Your task to perform on an android device: Open sound settings Image 0: 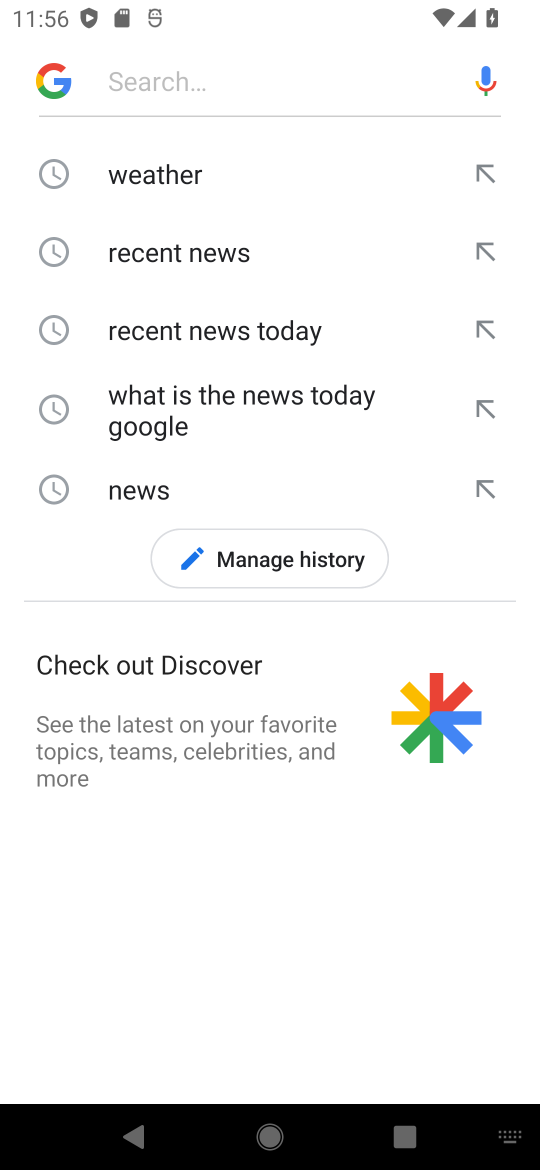
Step 0: press home button
Your task to perform on an android device: Open sound settings Image 1: 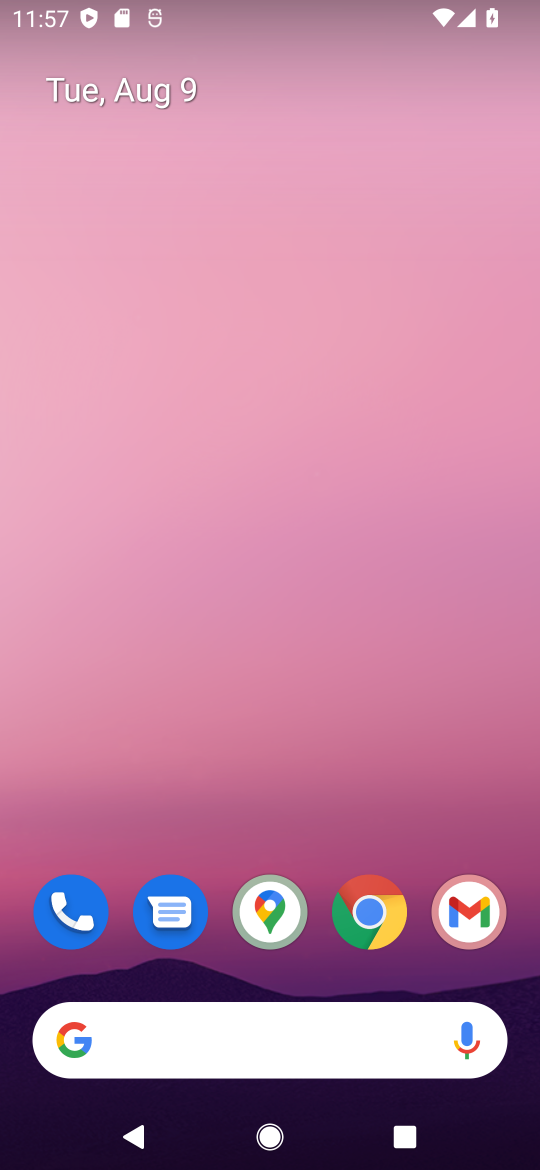
Step 1: drag from (216, 978) to (289, 352)
Your task to perform on an android device: Open sound settings Image 2: 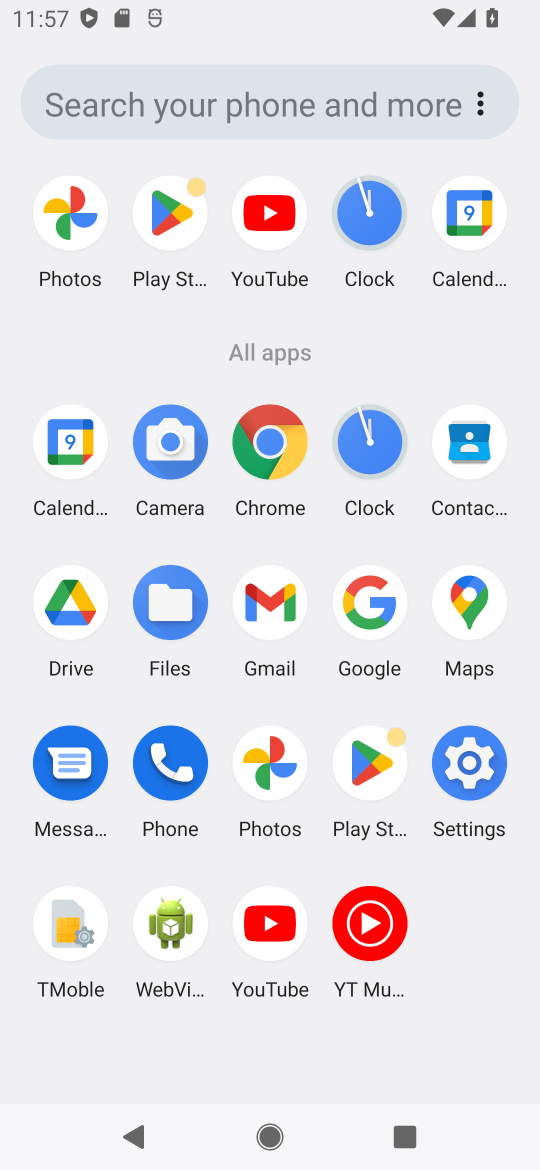
Step 2: click (453, 767)
Your task to perform on an android device: Open sound settings Image 3: 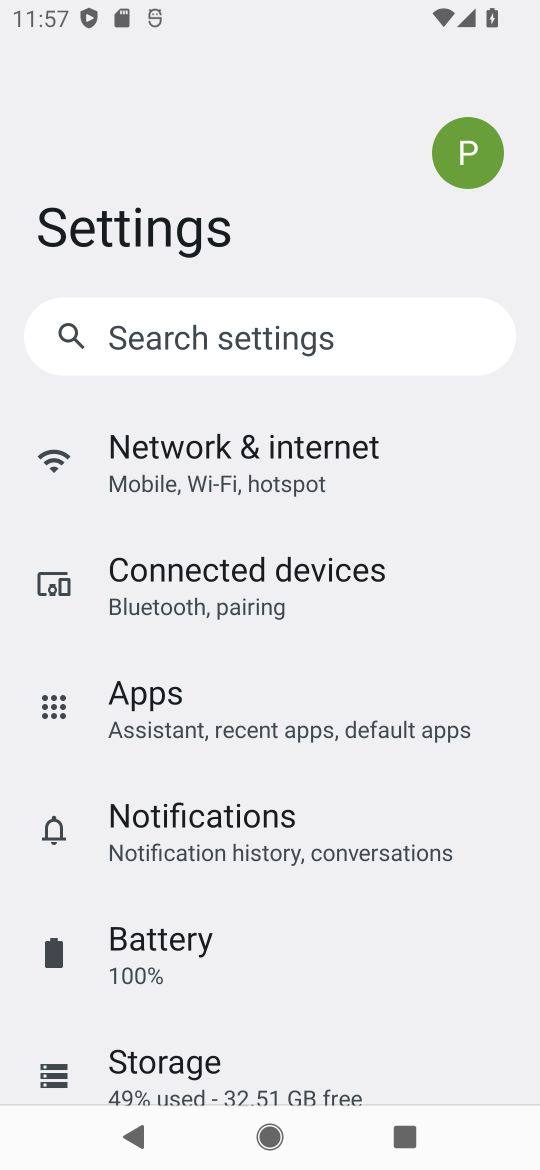
Step 3: drag from (233, 1062) to (276, 503)
Your task to perform on an android device: Open sound settings Image 4: 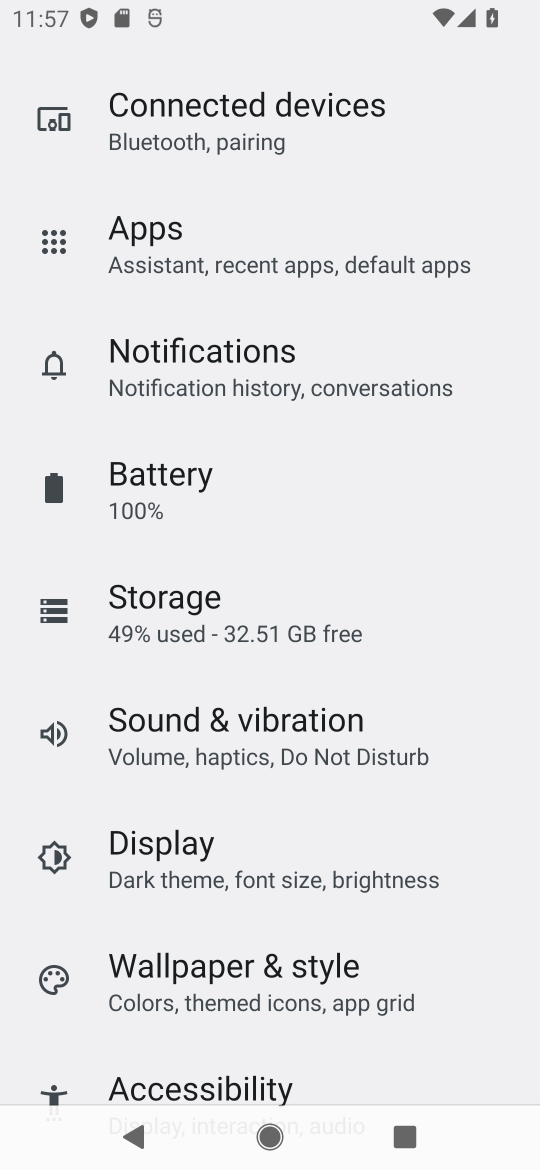
Step 4: drag from (145, 634) to (156, 527)
Your task to perform on an android device: Open sound settings Image 5: 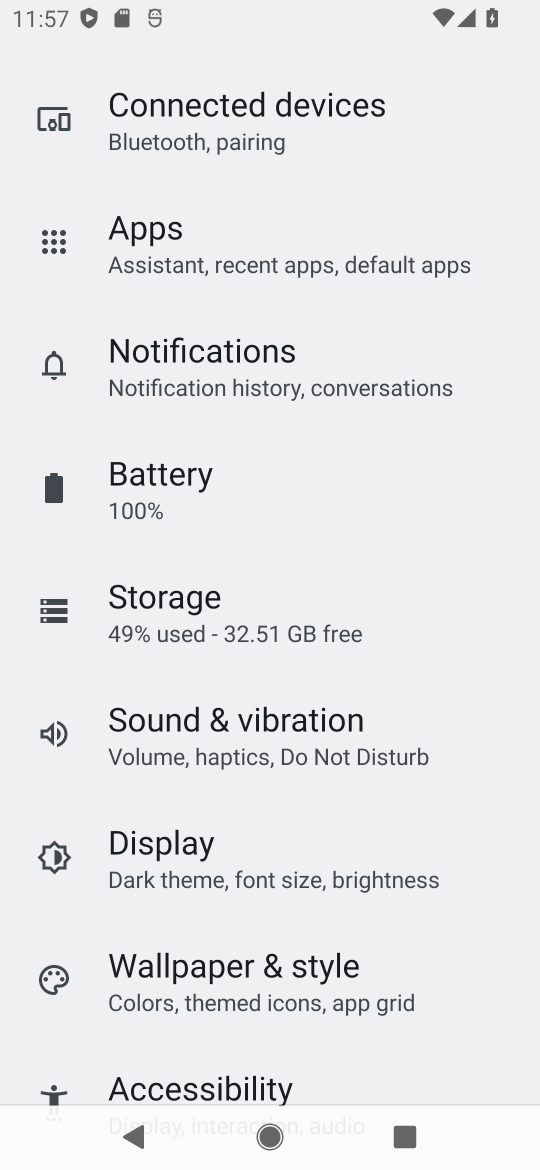
Step 5: drag from (187, 970) to (247, 351)
Your task to perform on an android device: Open sound settings Image 6: 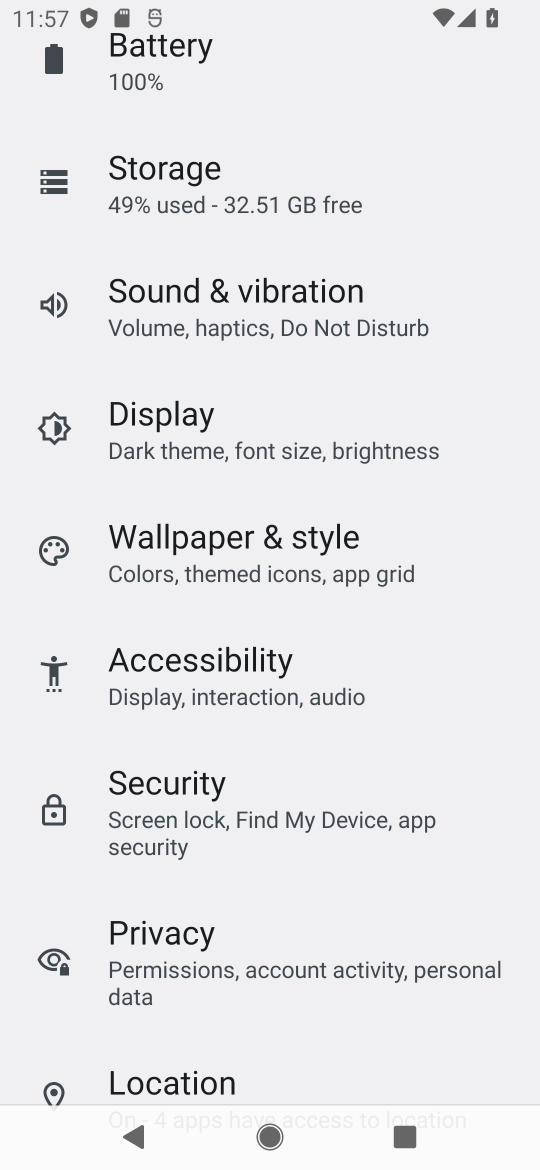
Step 6: click (196, 316)
Your task to perform on an android device: Open sound settings Image 7: 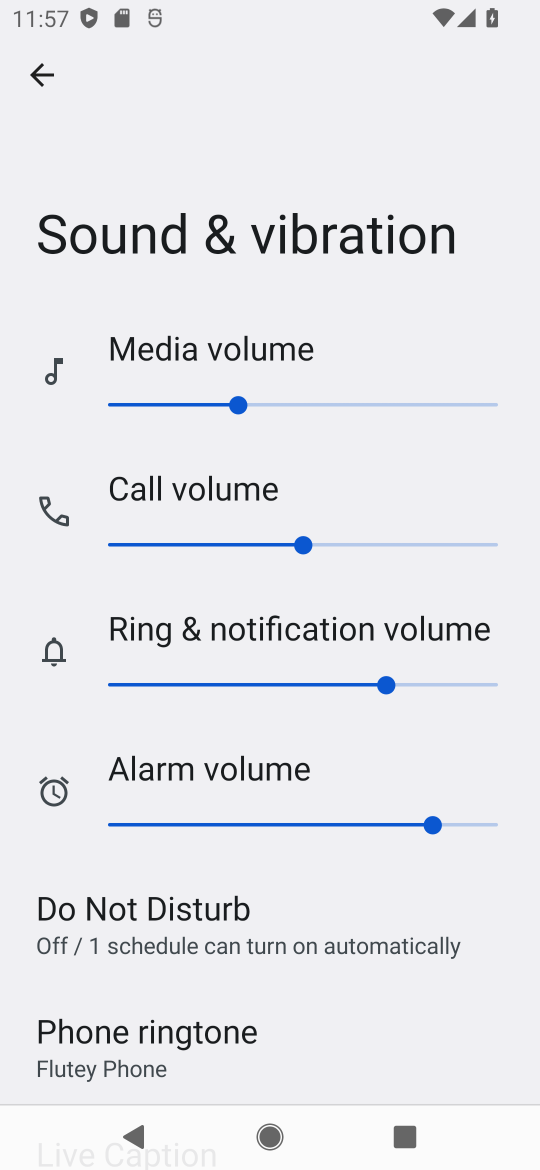
Step 7: task complete